Your task to perform on an android device: Go to notification settings Image 0: 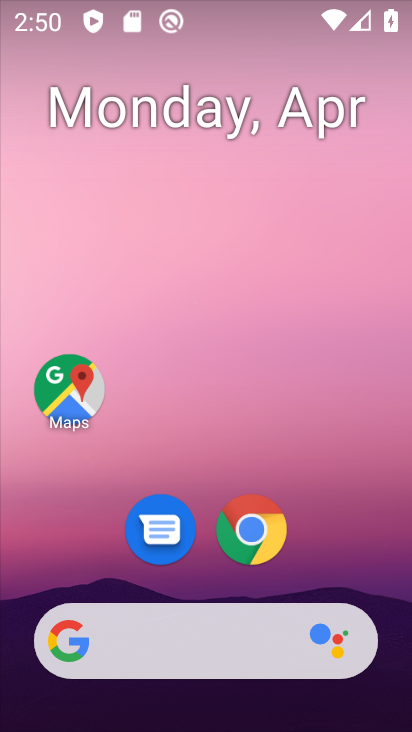
Step 0: drag from (256, 692) to (283, 242)
Your task to perform on an android device: Go to notification settings Image 1: 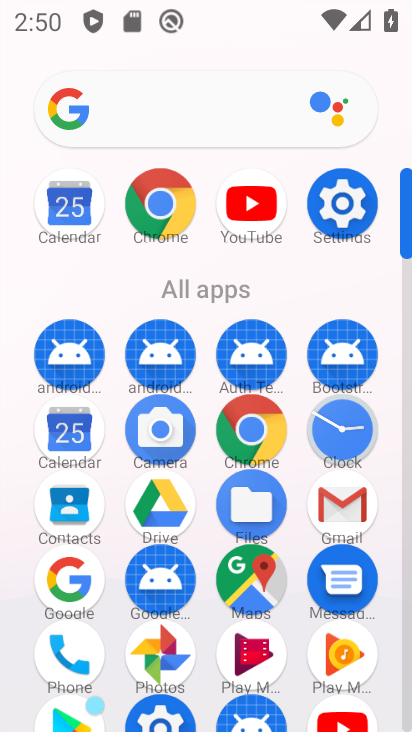
Step 1: click (344, 211)
Your task to perform on an android device: Go to notification settings Image 2: 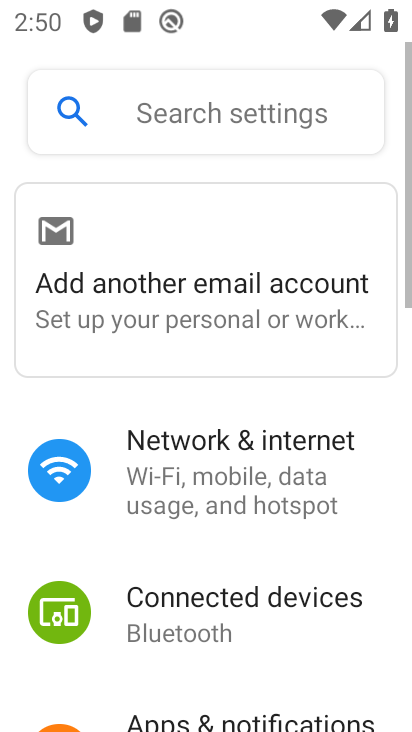
Step 2: click (183, 126)
Your task to perform on an android device: Go to notification settings Image 3: 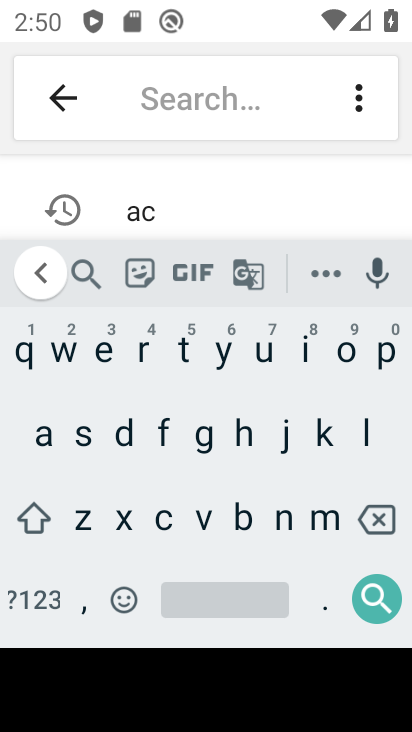
Step 3: click (281, 515)
Your task to perform on an android device: Go to notification settings Image 4: 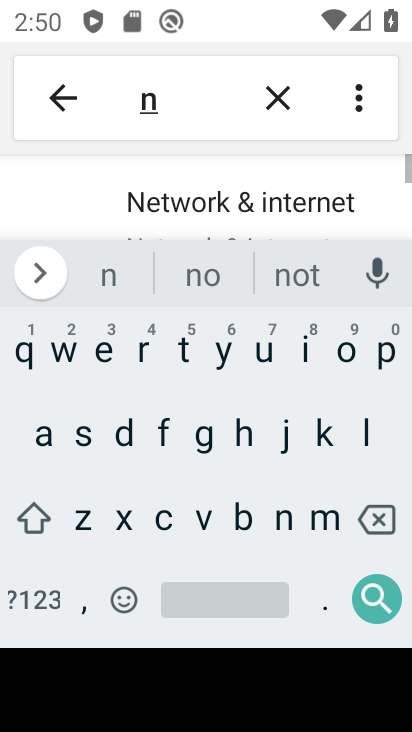
Step 4: click (344, 357)
Your task to perform on an android device: Go to notification settings Image 5: 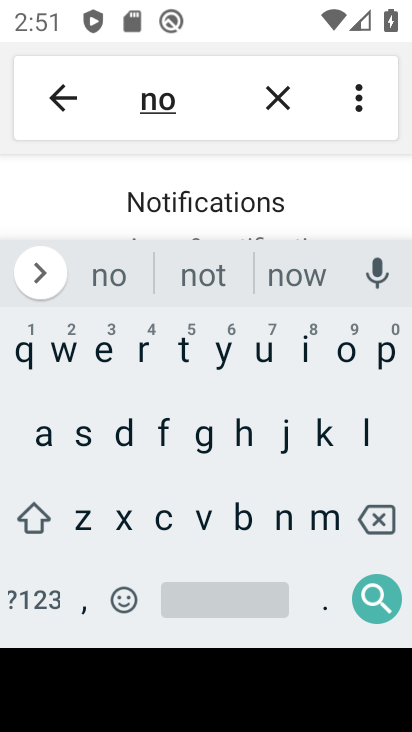
Step 5: click (235, 218)
Your task to perform on an android device: Go to notification settings Image 6: 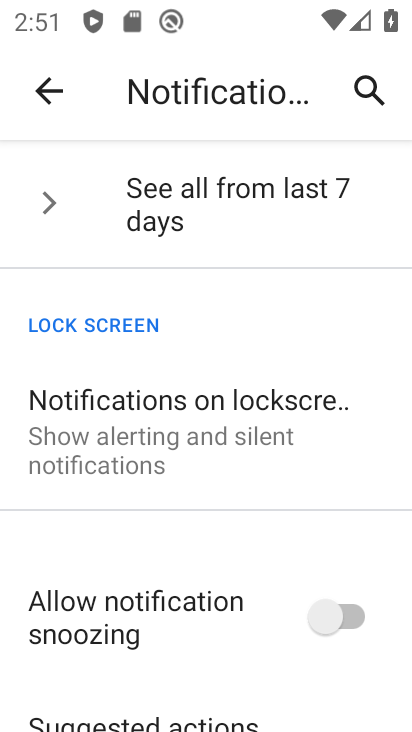
Step 6: click (191, 392)
Your task to perform on an android device: Go to notification settings Image 7: 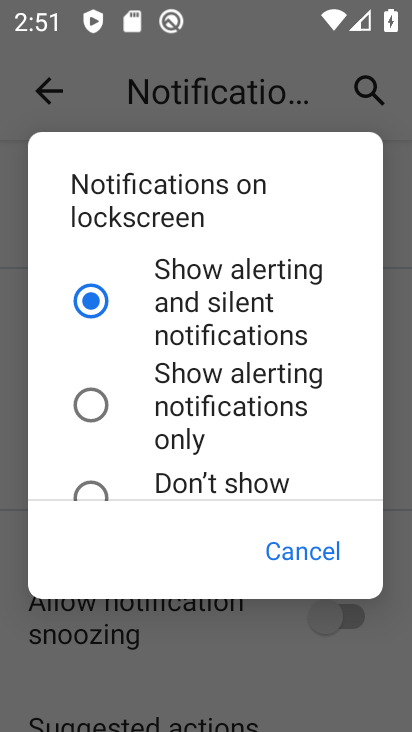
Step 7: task complete